Your task to perform on an android device: Search for "logitech g502" on walmart.com, select the first entry, and add it to the cart. Image 0: 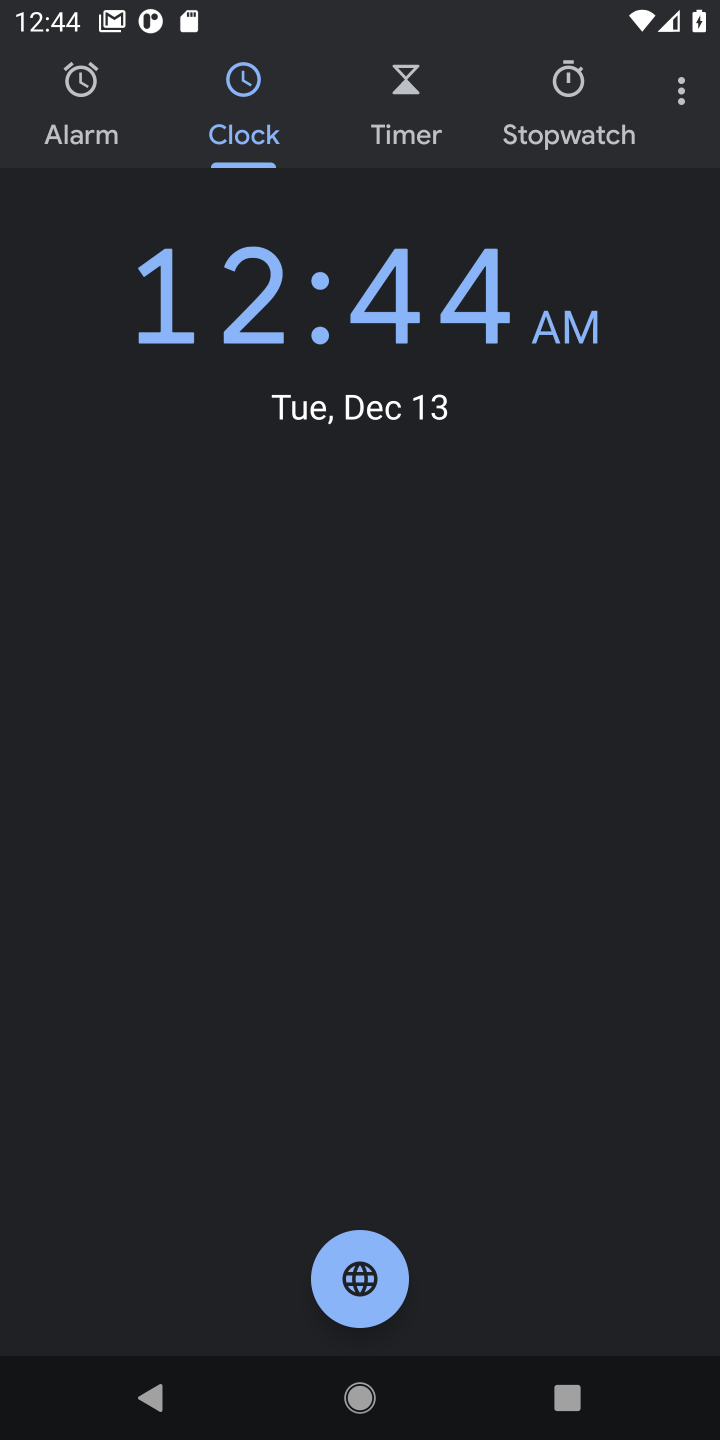
Step 0: press home button
Your task to perform on an android device: Search for "logitech g502" on walmart.com, select the first entry, and add it to the cart. Image 1: 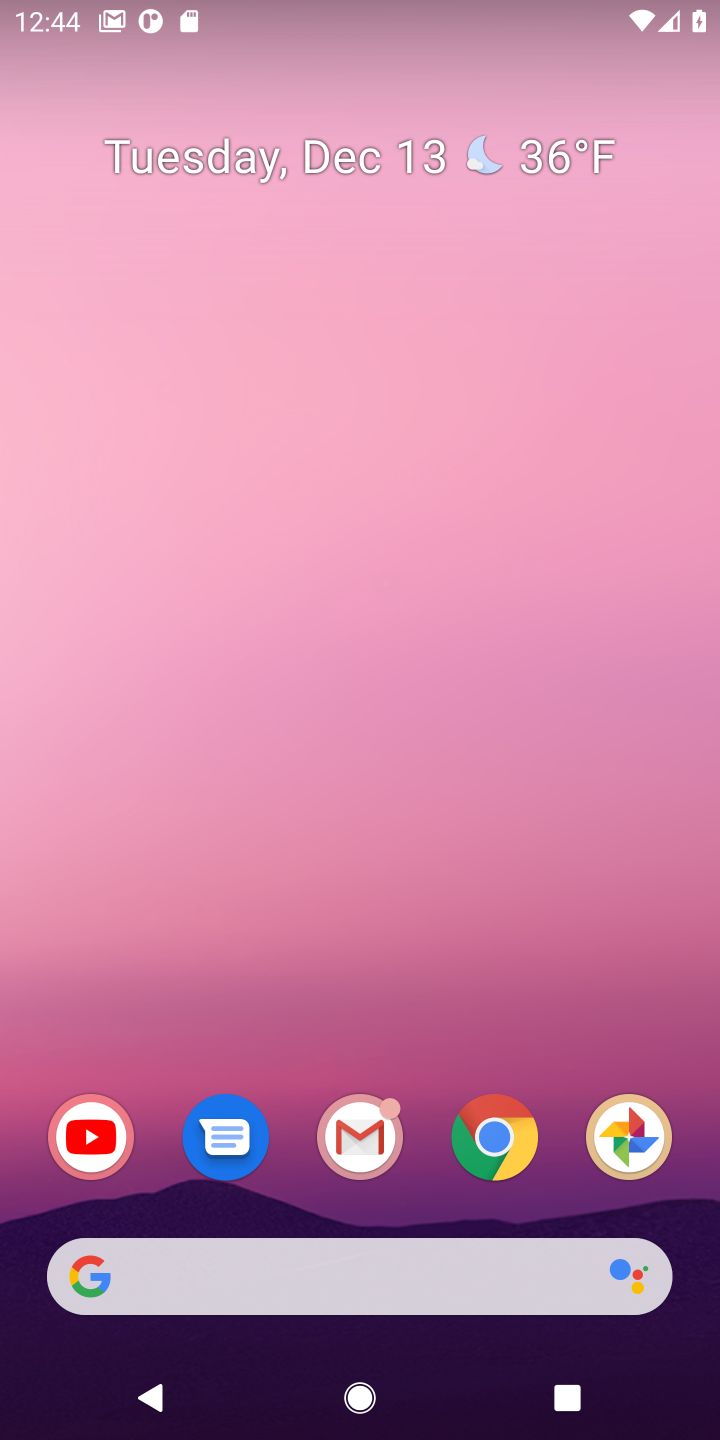
Step 1: click (447, 1280)
Your task to perform on an android device: Search for "logitech g502" on walmart.com, select the first entry, and add it to the cart. Image 2: 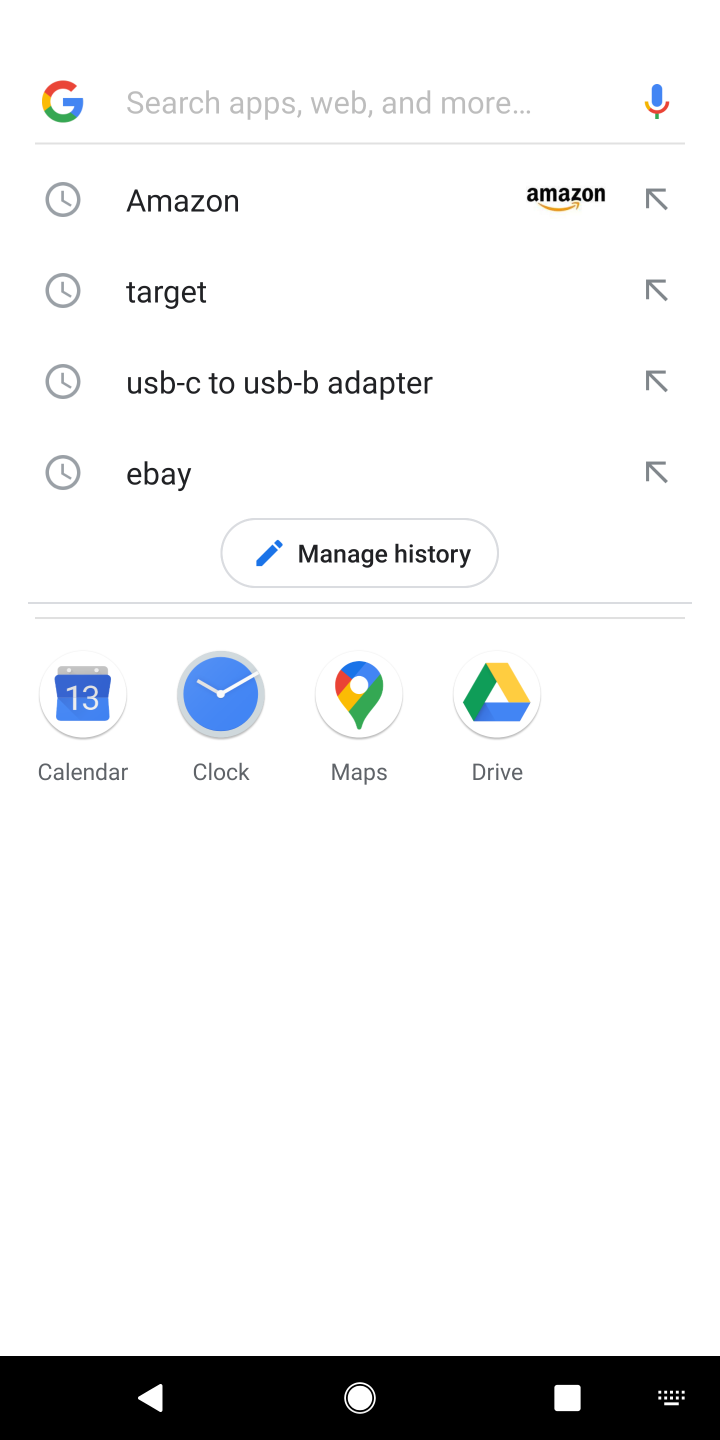
Step 2: type "walmart"
Your task to perform on an android device: Search for "logitech g502" on walmart.com, select the first entry, and add it to the cart. Image 3: 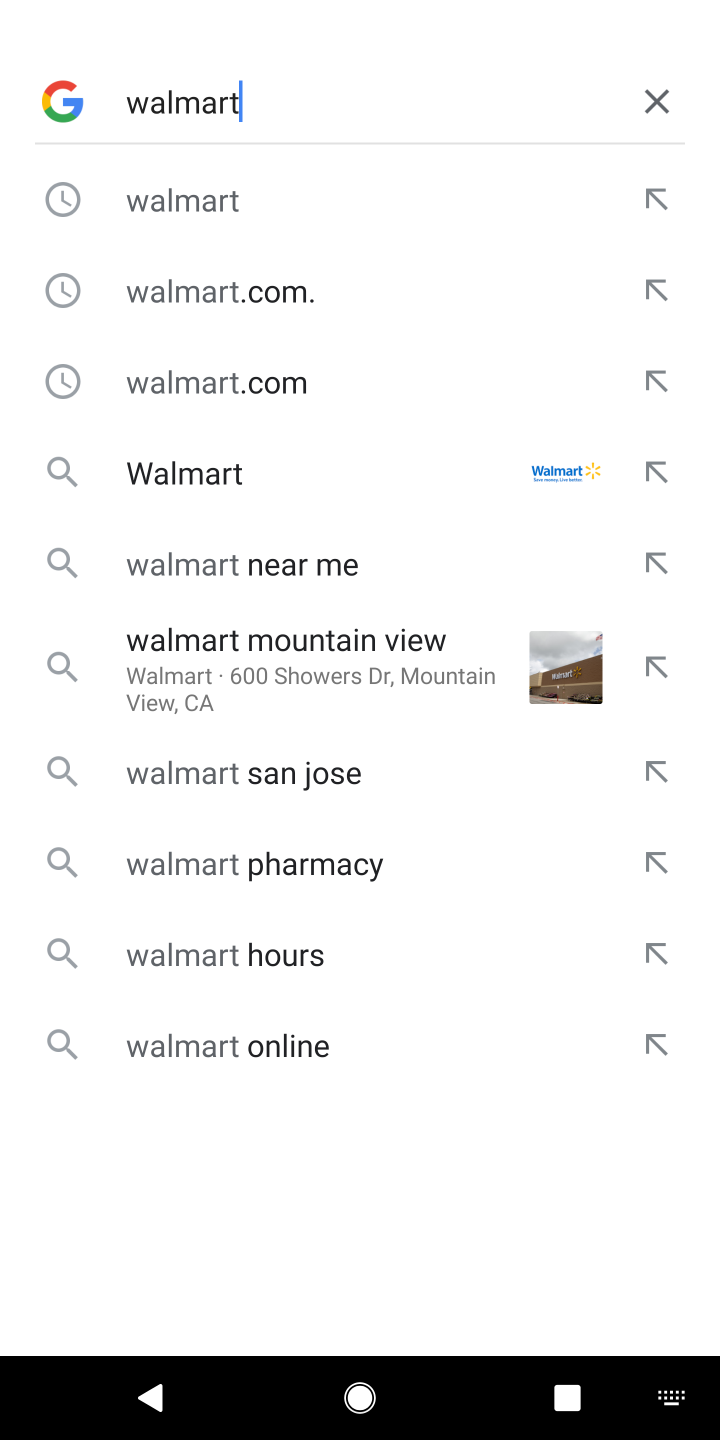
Step 3: click (238, 223)
Your task to perform on an android device: Search for "logitech g502" on walmart.com, select the first entry, and add it to the cart. Image 4: 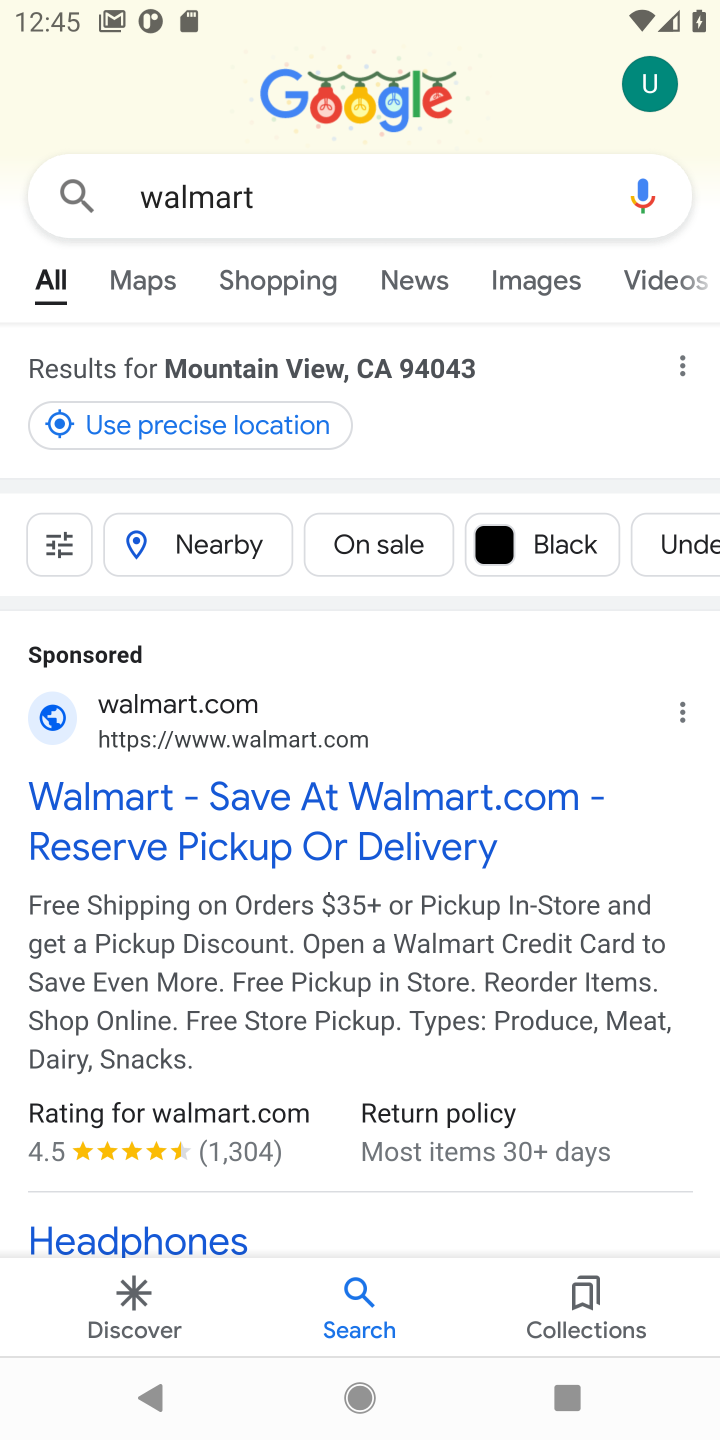
Step 4: click (93, 740)
Your task to perform on an android device: Search for "logitech g502" on walmart.com, select the first entry, and add it to the cart. Image 5: 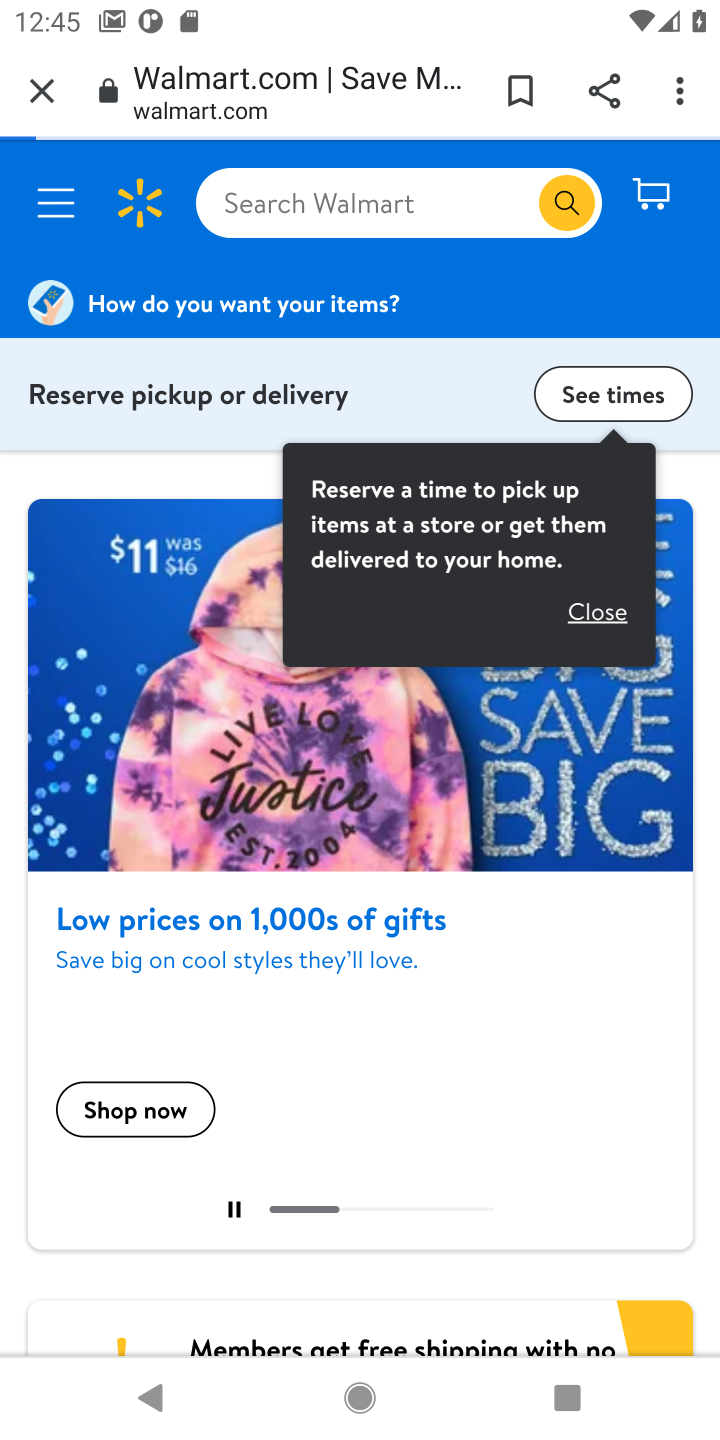
Step 5: click (391, 215)
Your task to perform on an android device: Search for "logitech g502" on walmart.com, select the first entry, and add it to the cart. Image 6: 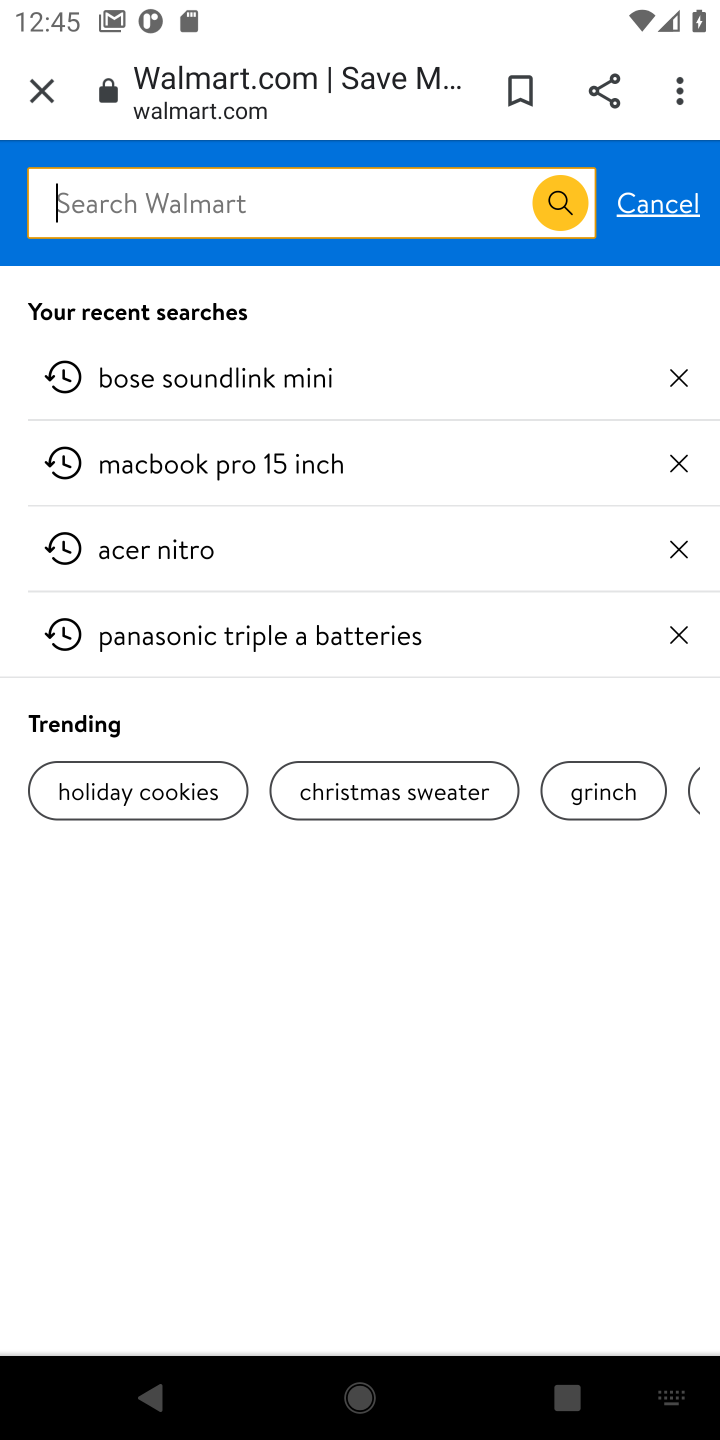
Step 6: type "logitech g502"
Your task to perform on an android device: Search for "logitech g502" on walmart.com, select the first entry, and add it to the cart. Image 7: 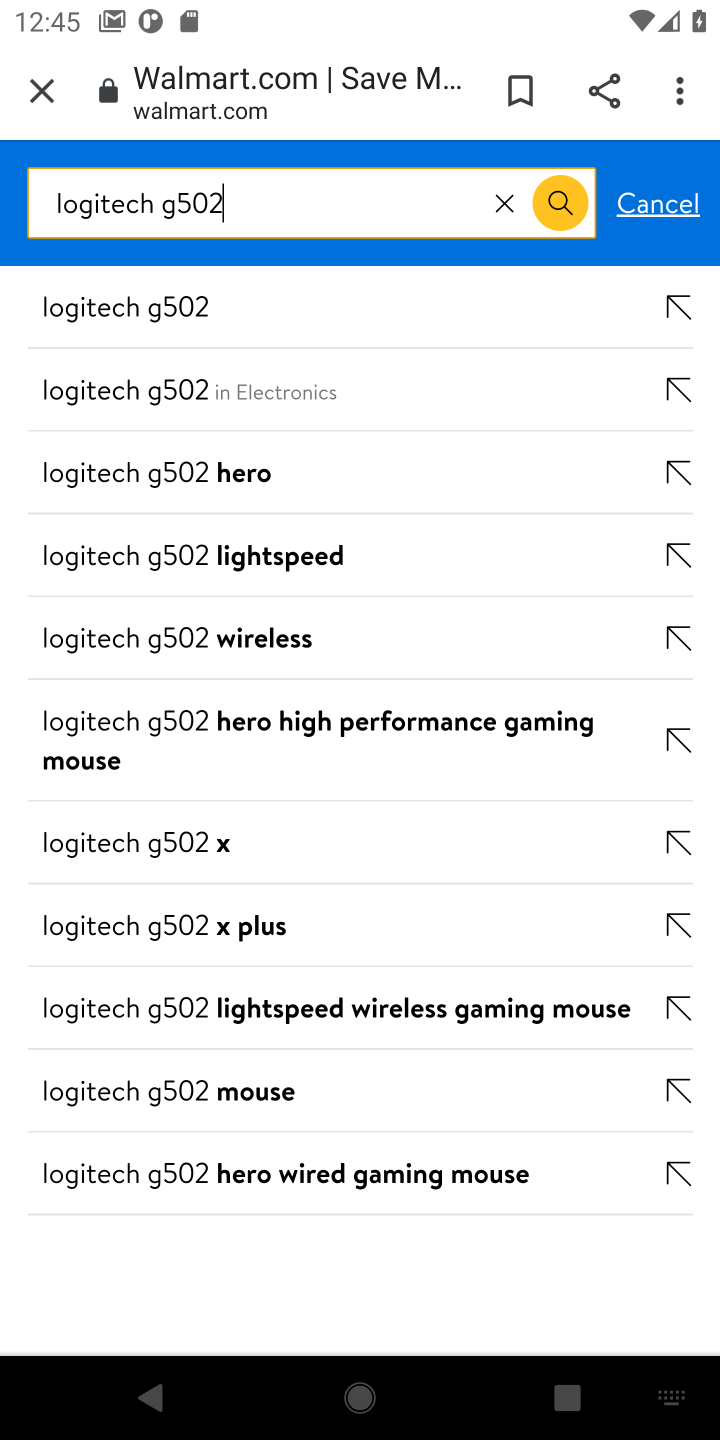
Step 7: click (574, 219)
Your task to perform on an android device: Search for "logitech g502" on walmart.com, select the first entry, and add it to the cart. Image 8: 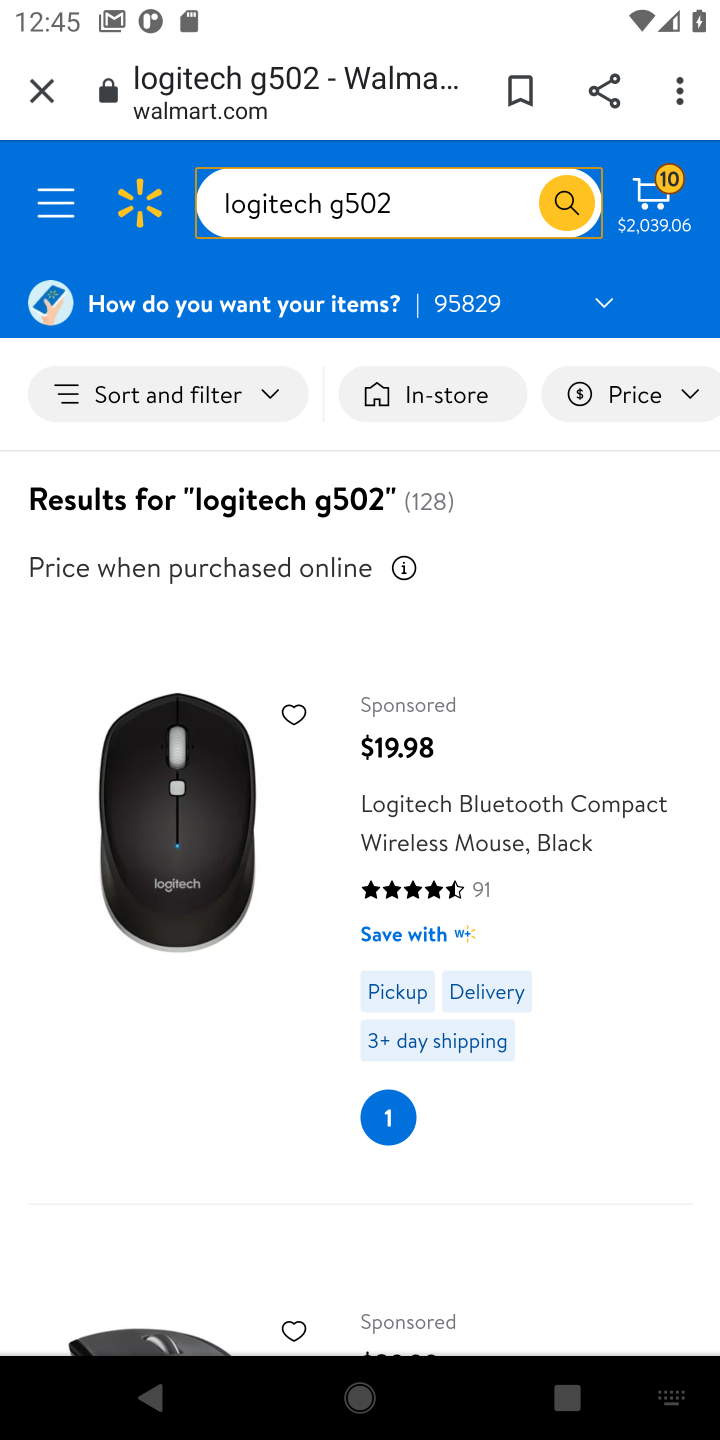
Step 8: click (312, 842)
Your task to perform on an android device: Search for "logitech g502" on walmart.com, select the first entry, and add it to the cart. Image 9: 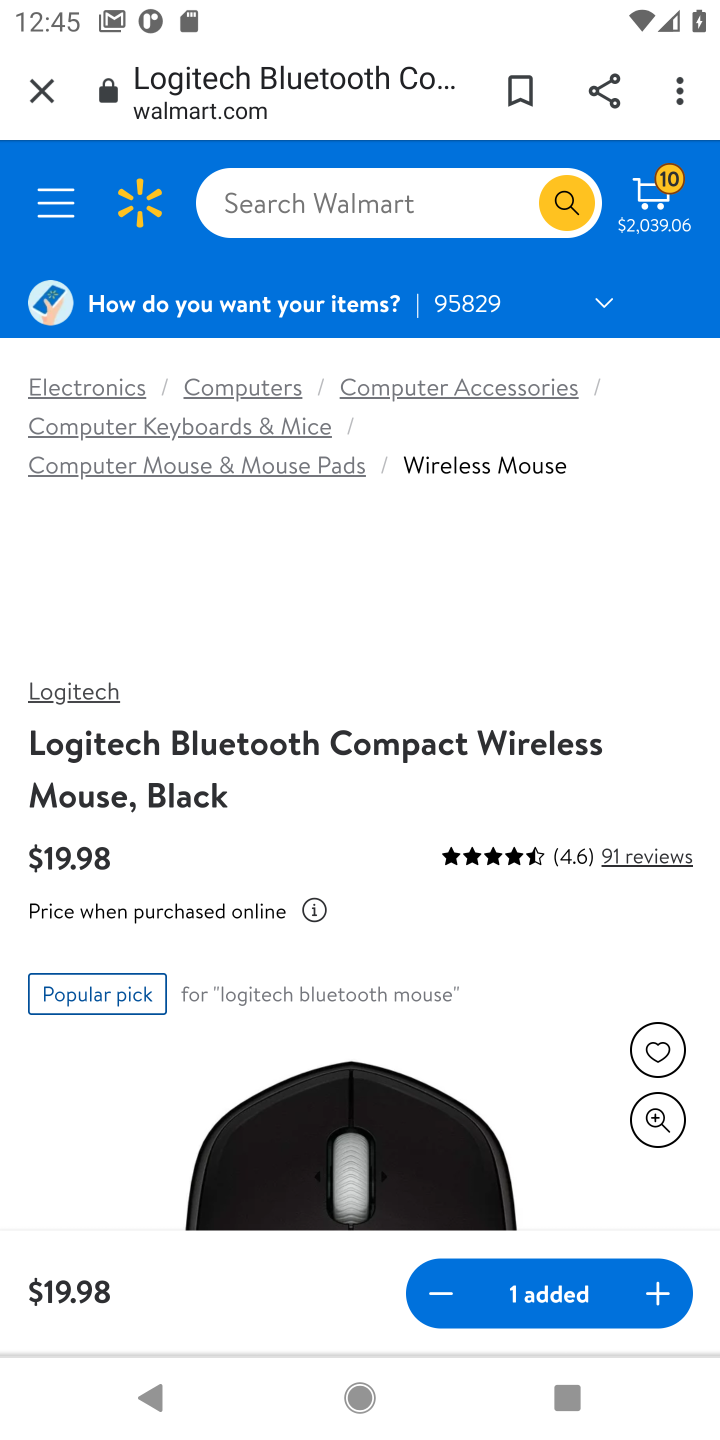
Step 9: click (534, 1294)
Your task to perform on an android device: Search for "logitech g502" on walmart.com, select the first entry, and add it to the cart. Image 10: 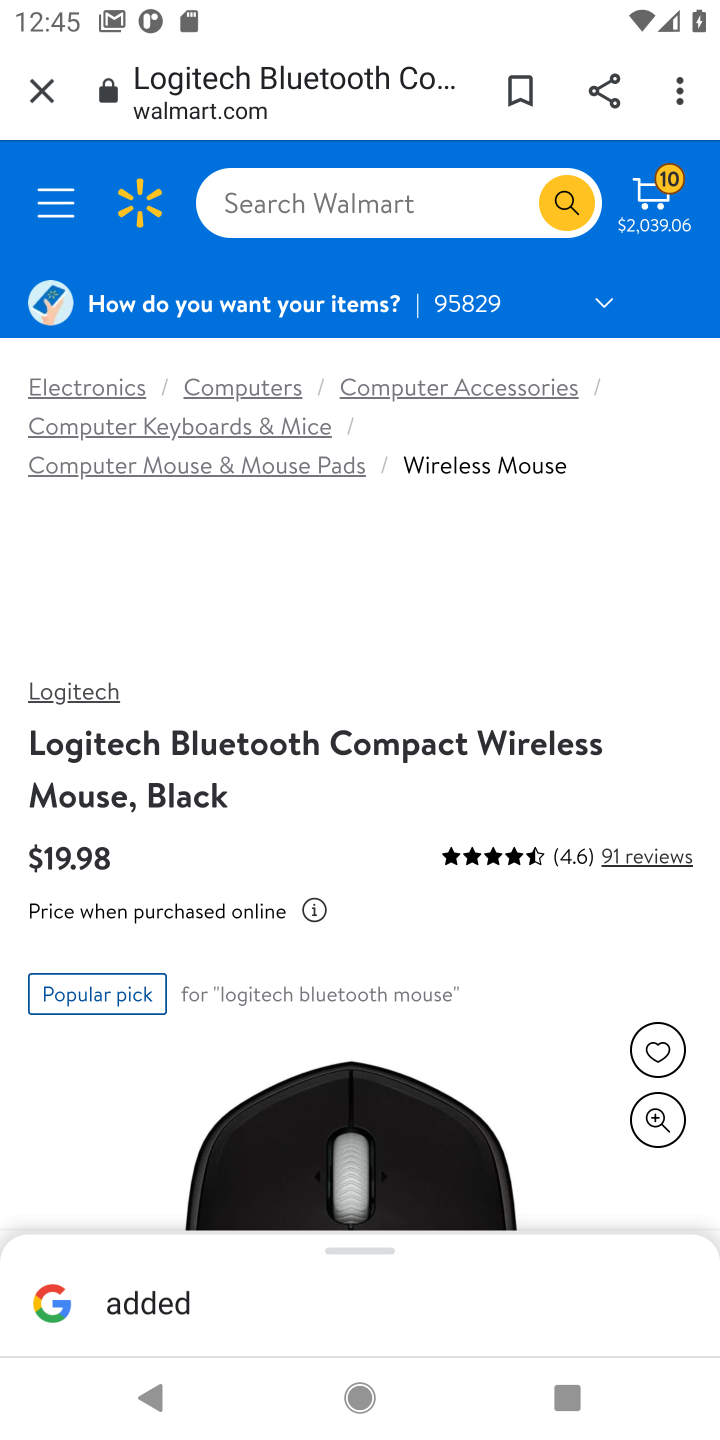
Step 10: click (548, 1050)
Your task to perform on an android device: Search for "logitech g502" on walmart.com, select the first entry, and add it to the cart. Image 11: 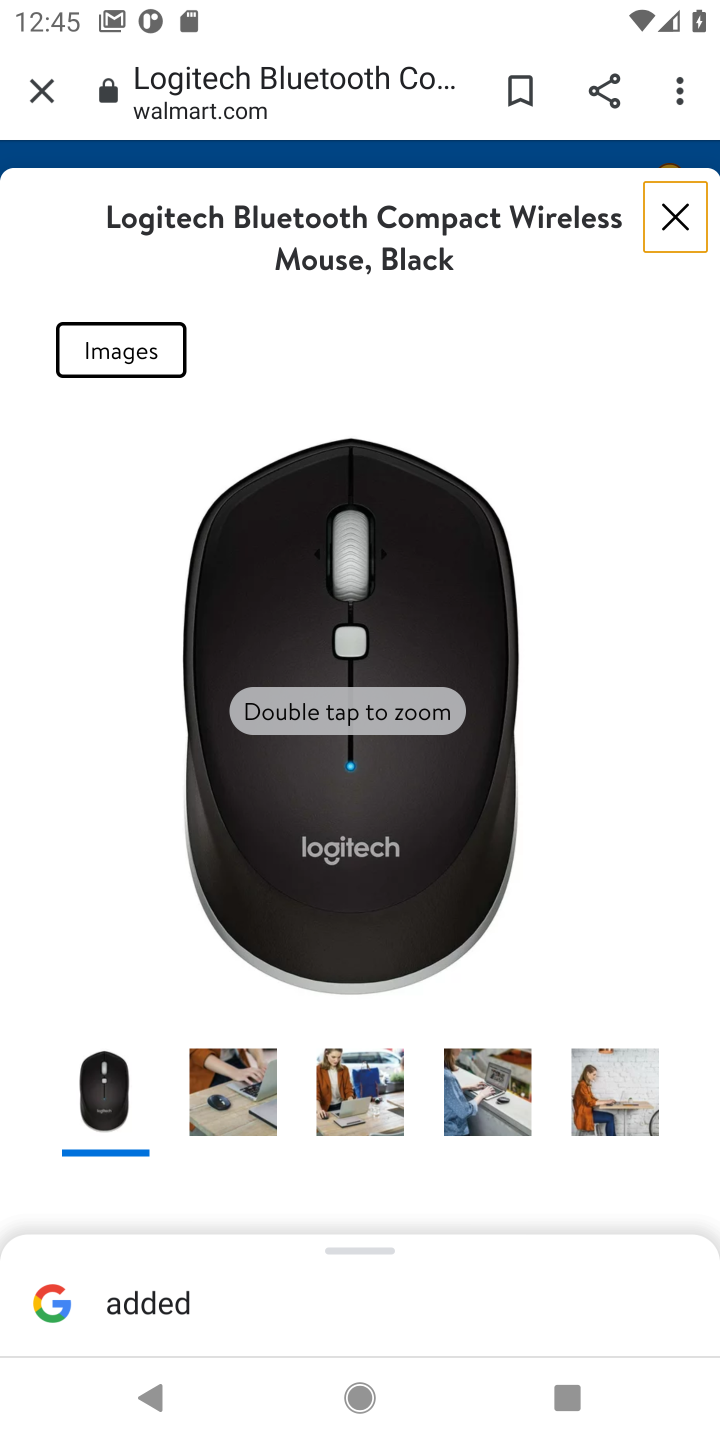
Step 11: task complete